Your task to perform on an android device: all mails in gmail Image 0: 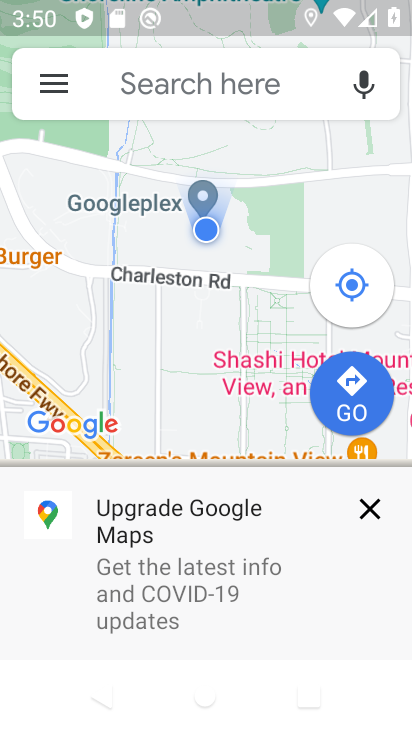
Step 0: press home button
Your task to perform on an android device: all mails in gmail Image 1: 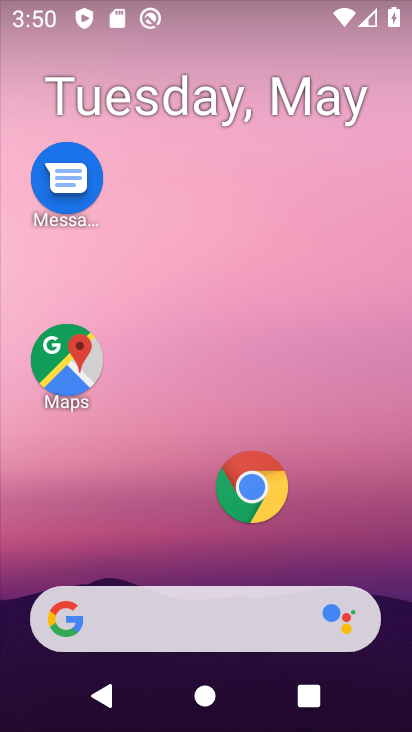
Step 1: drag from (228, 415) to (167, 30)
Your task to perform on an android device: all mails in gmail Image 2: 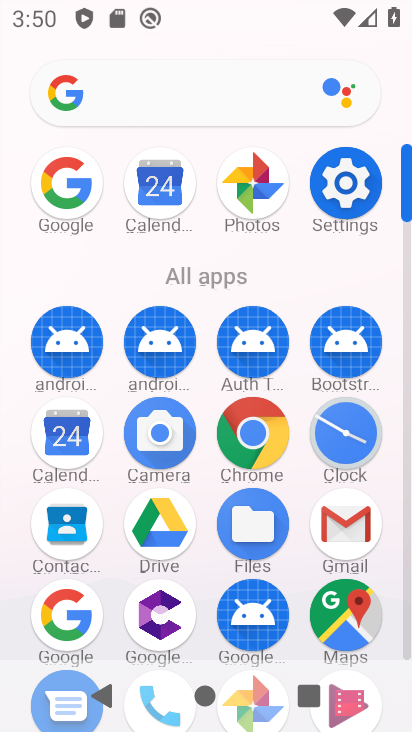
Step 2: click (352, 518)
Your task to perform on an android device: all mails in gmail Image 3: 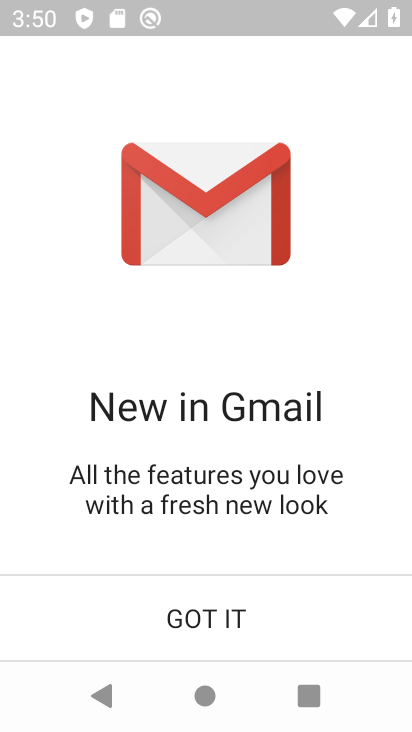
Step 3: click (220, 624)
Your task to perform on an android device: all mails in gmail Image 4: 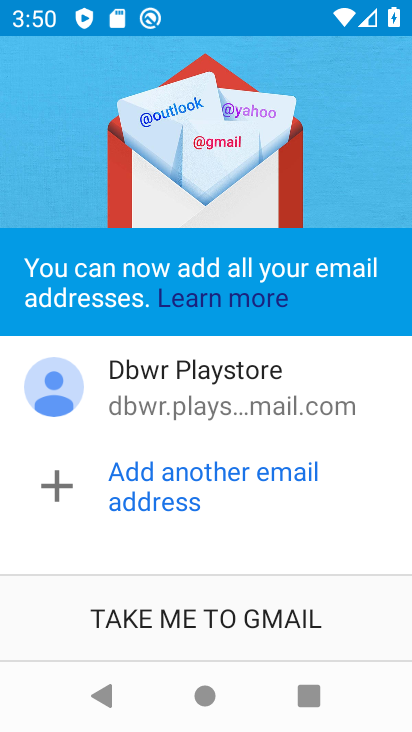
Step 4: click (220, 624)
Your task to perform on an android device: all mails in gmail Image 5: 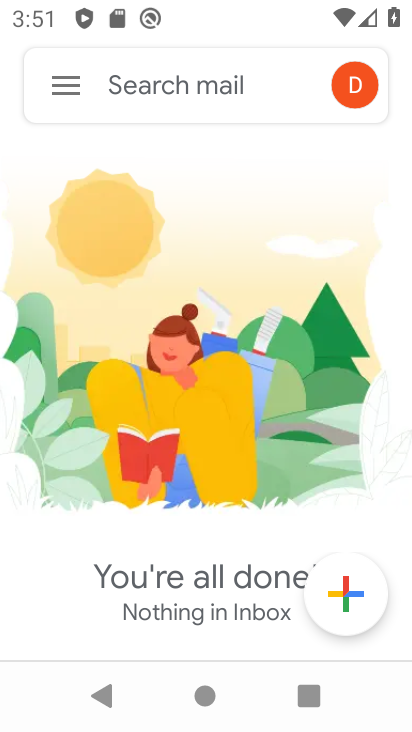
Step 5: click (68, 102)
Your task to perform on an android device: all mails in gmail Image 6: 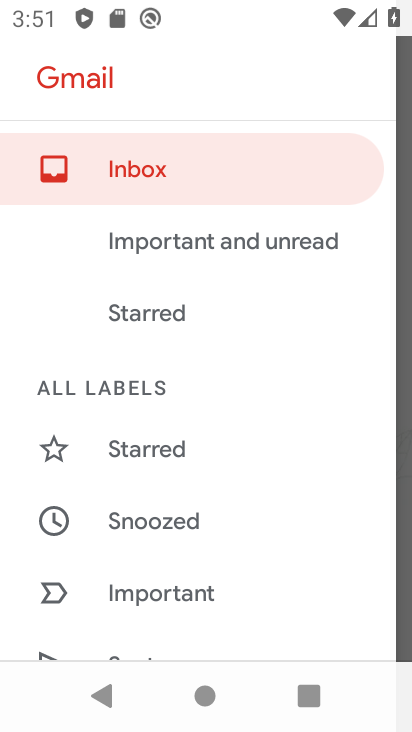
Step 6: drag from (220, 610) to (224, 374)
Your task to perform on an android device: all mails in gmail Image 7: 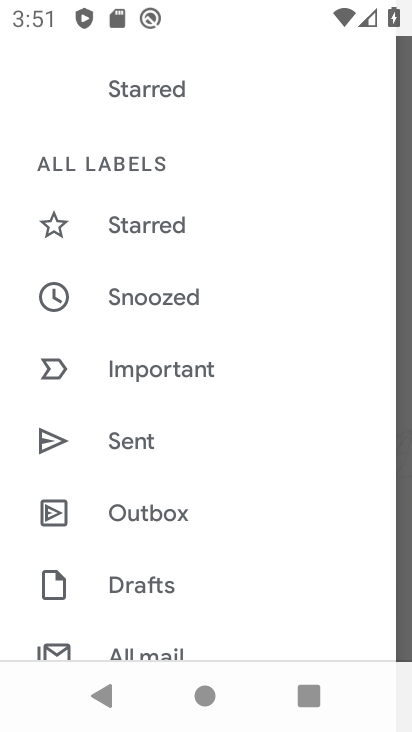
Step 7: click (137, 656)
Your task to perform on an android device: all mails in gmail Image 8: 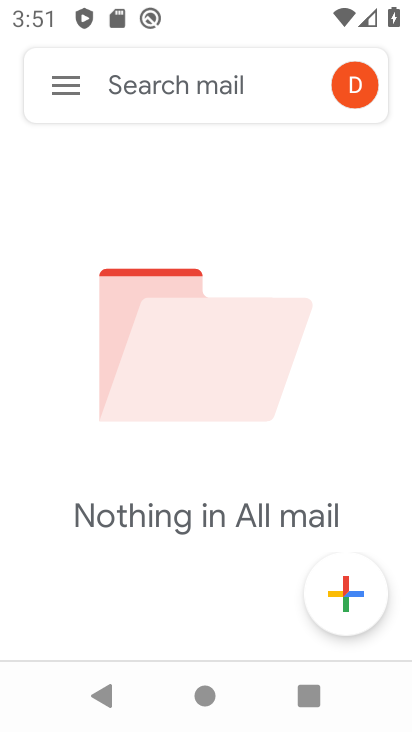
Step 8: task complete